Your task to perform on an android device: toggle airplane mode Image 0: 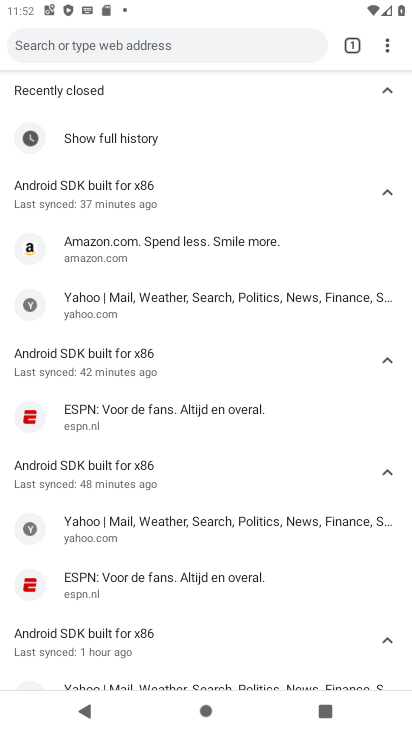
Step 0: press home button
Your task to perform on an android device: toggle airplane mode Image 1: 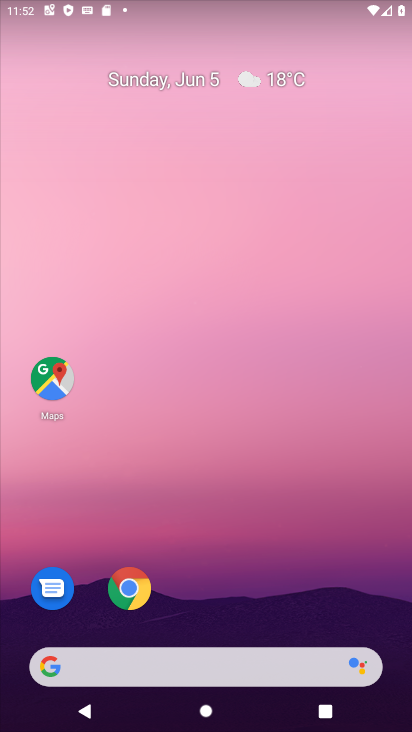
Step 1: drag from (264, 590) to (231, 232)
Your task to perform on an android device: toggle airplane mode Image 2: 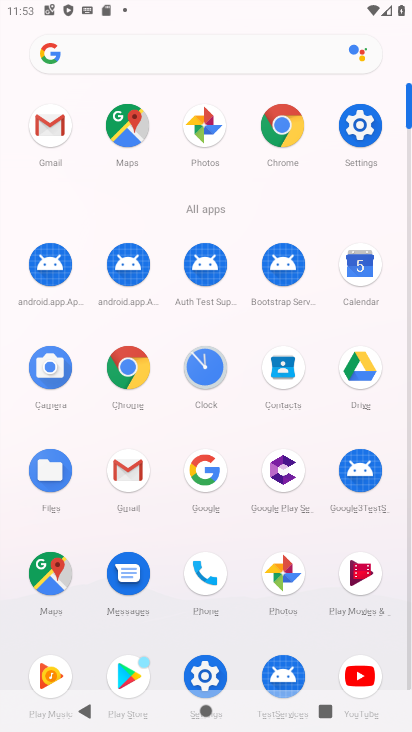
Step 2: click (364, 115)
Your task to perform on an android device: toggle airplane mode Image 3: 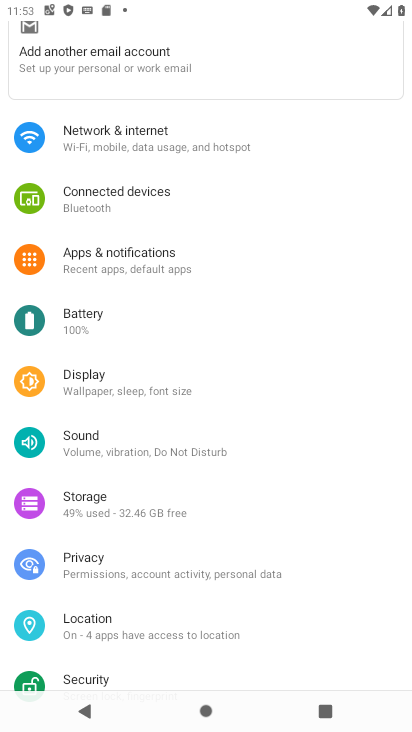
Step 3: click (238, 144)
Your task to perform on an android device: toggle airplane mode Image 4: 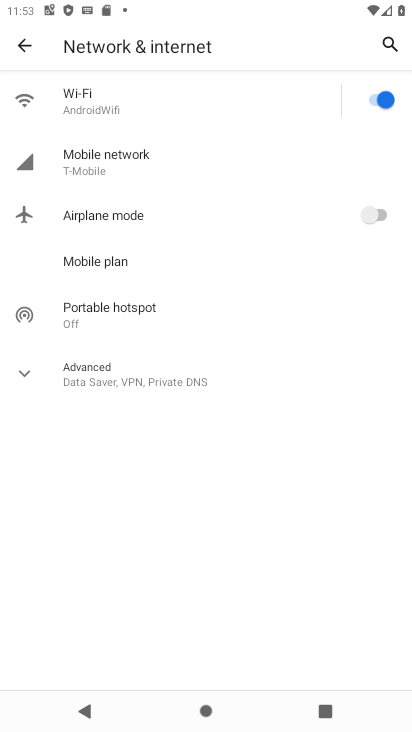
Step 4: click (390, 226)
Your task to perform on an android device: toggle airplane mode Image 5: 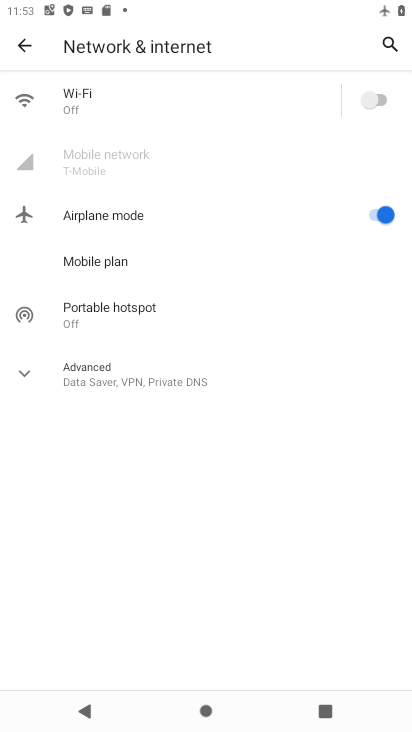
Step 5: task complete